Your task to perform on an android device: turn on sleep mode Image 0: 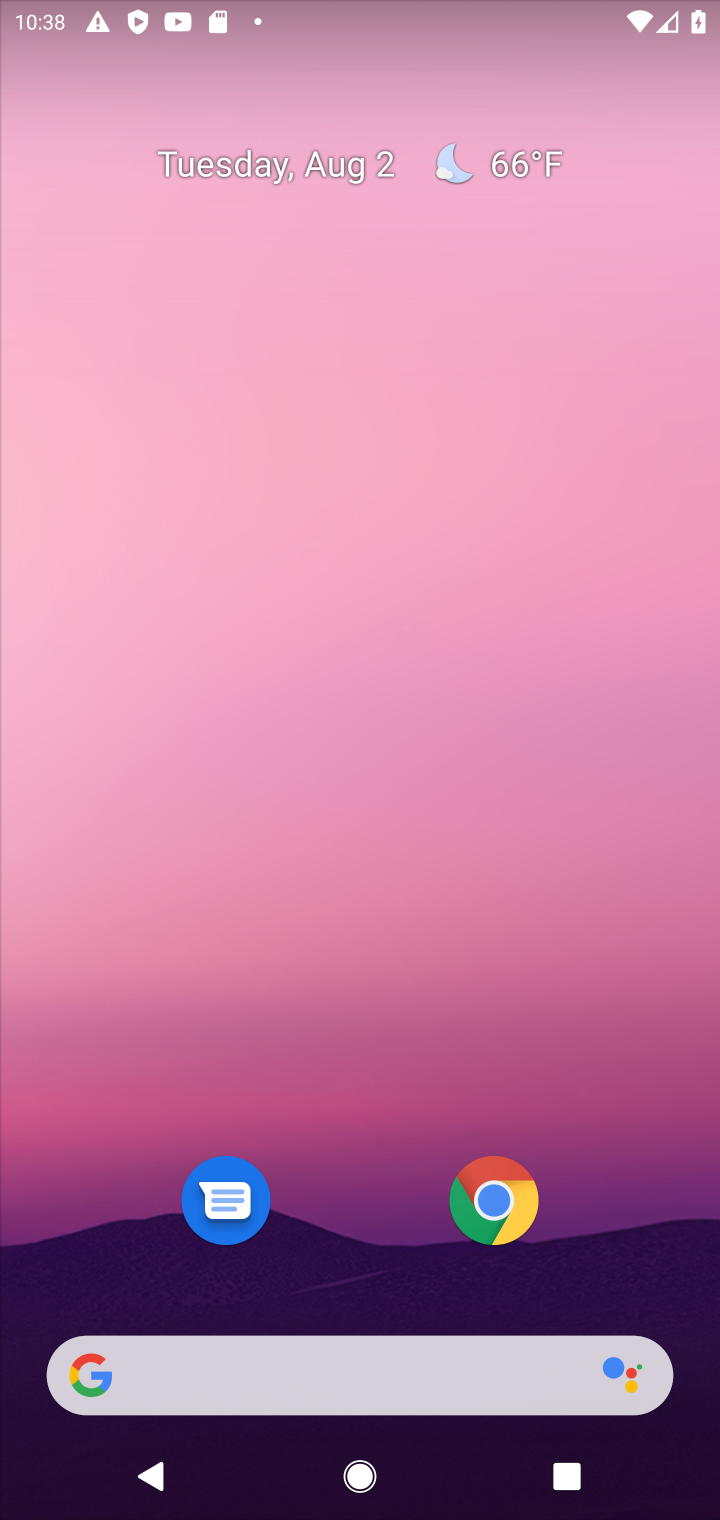
Step 0: press home button
Your task to perform on an android device: turn on sleep mode Image 1: 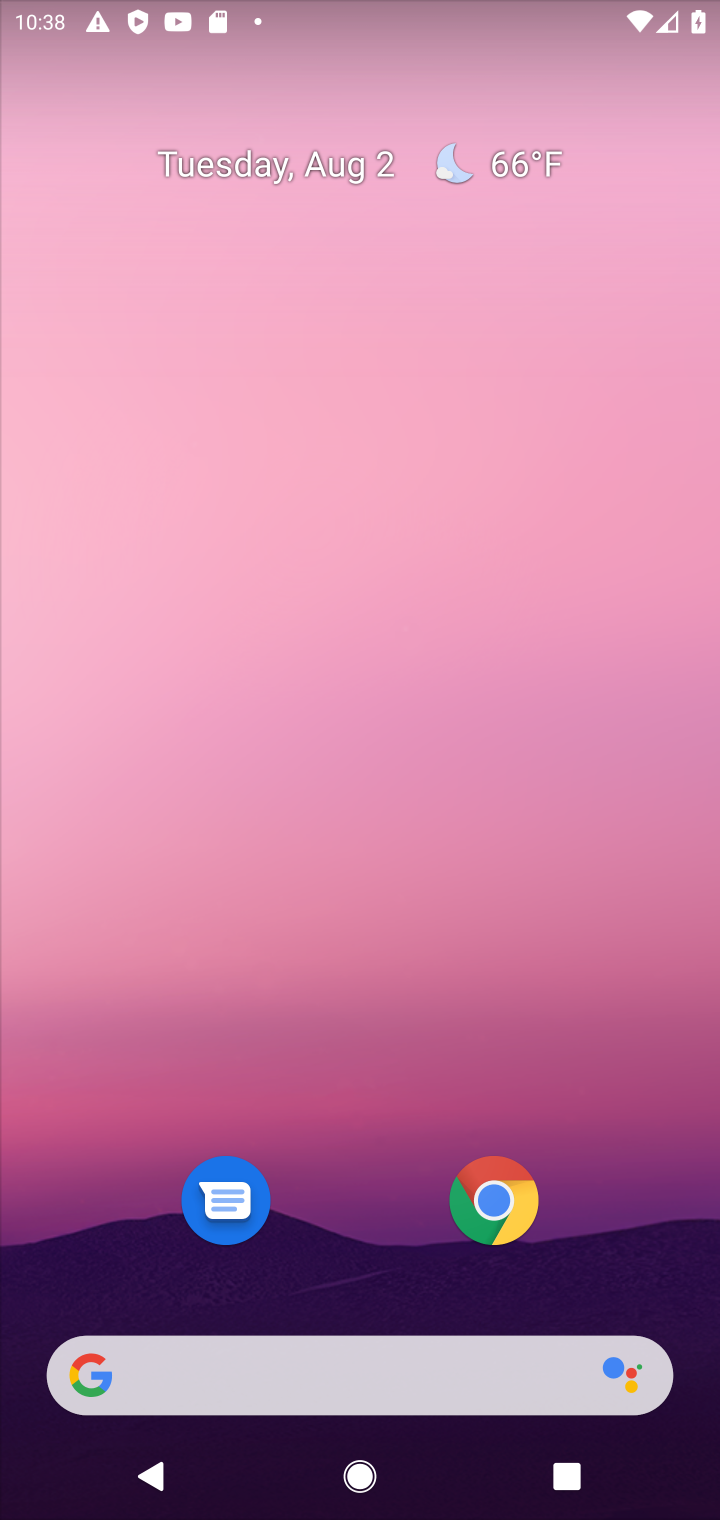
Step 1: drag from (658, 1279) to (592, 180)
Your task to perform on an android device: turn on sleep mode Image 2: 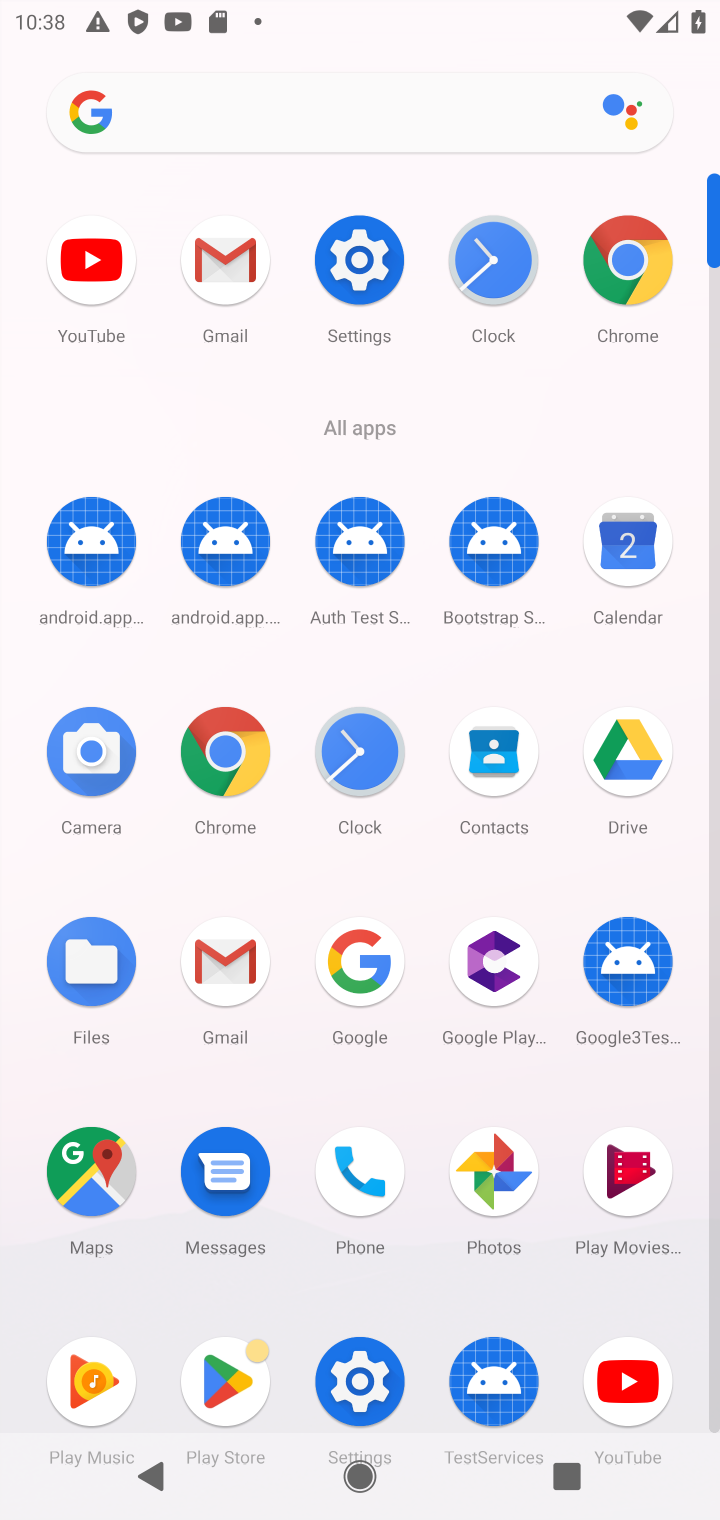
Step 2: click (355, 1375)
Your task to perform on an android device: turn on sleep mode Image 3: 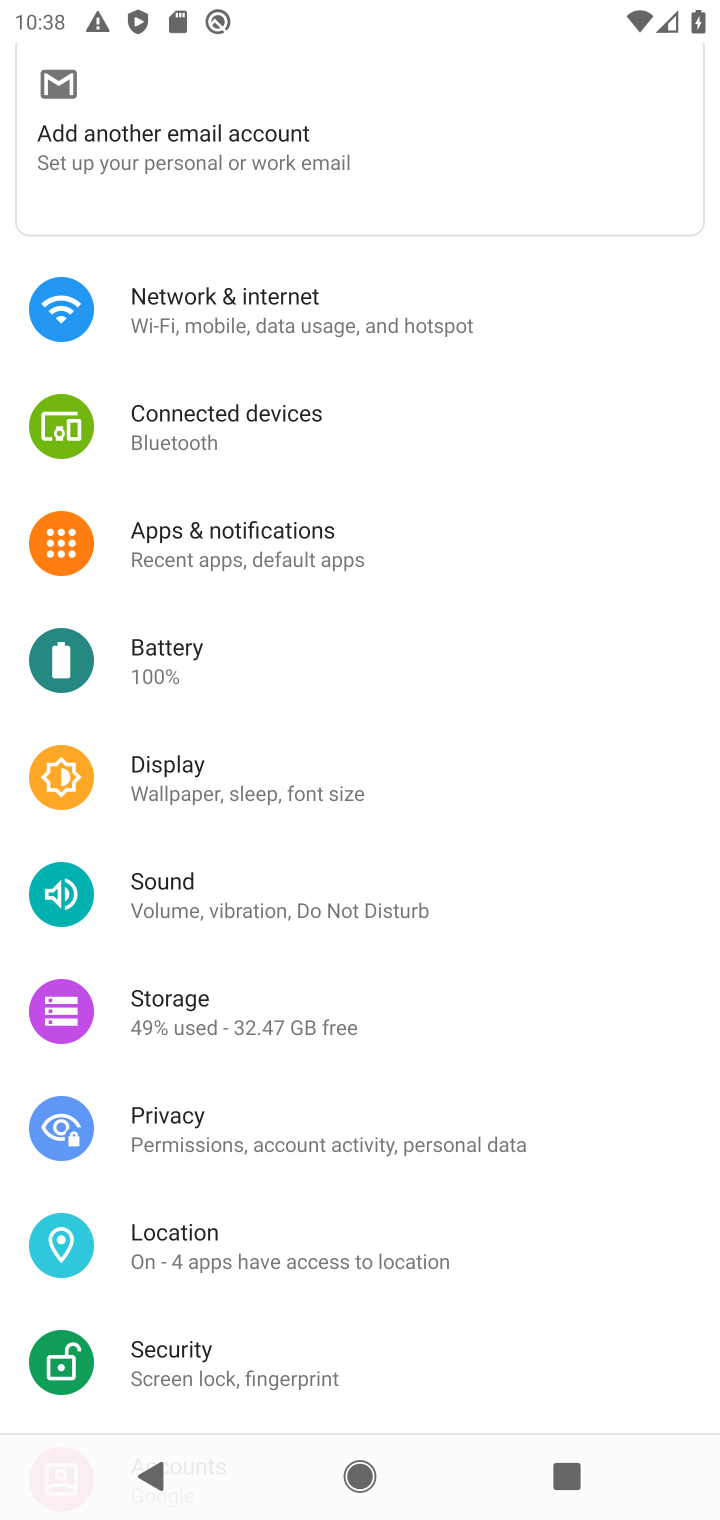
Step 3: click (185, 765)
Your task to perform on an android device: turn on sleep mode Image 4: 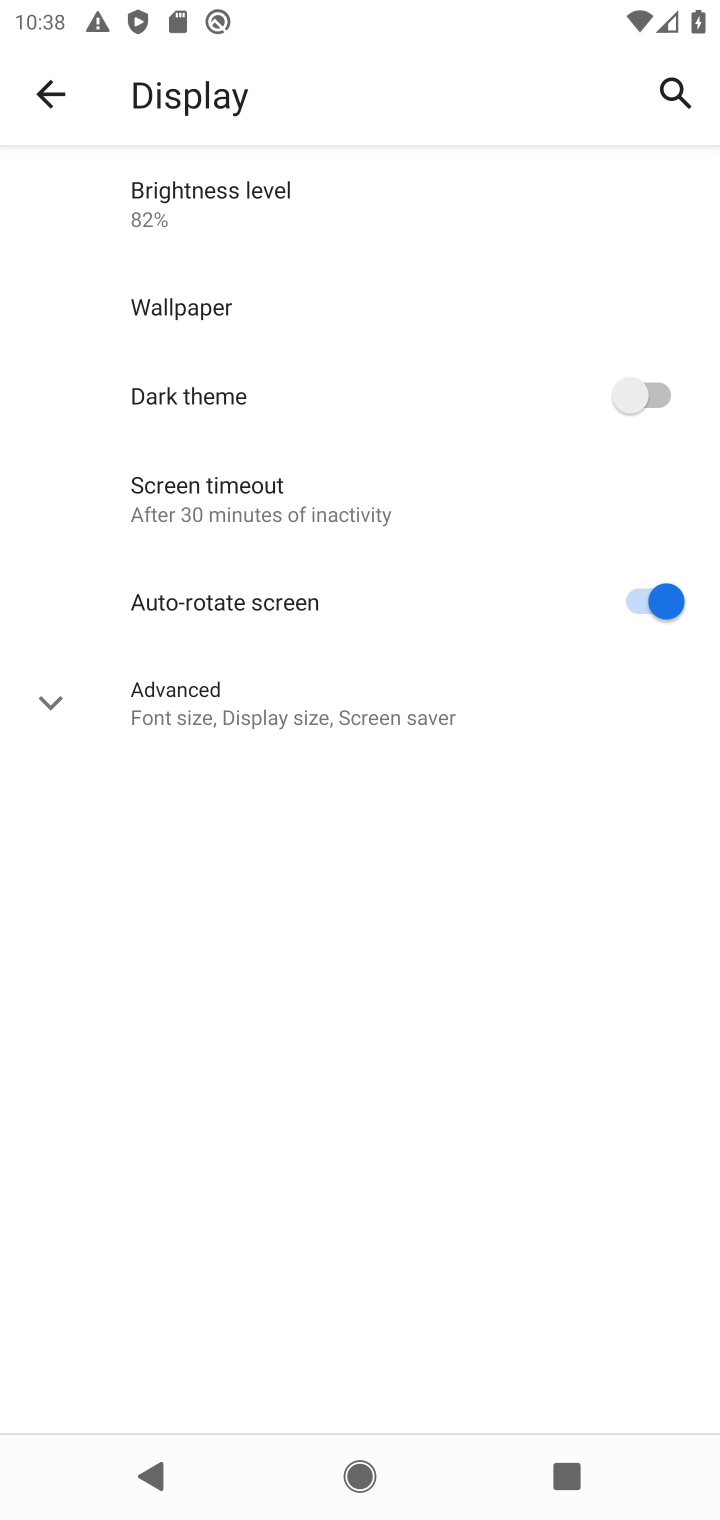
Step 4: click (51, 701)
Your task to perform on an android device: turn on sleep mode Image 5: 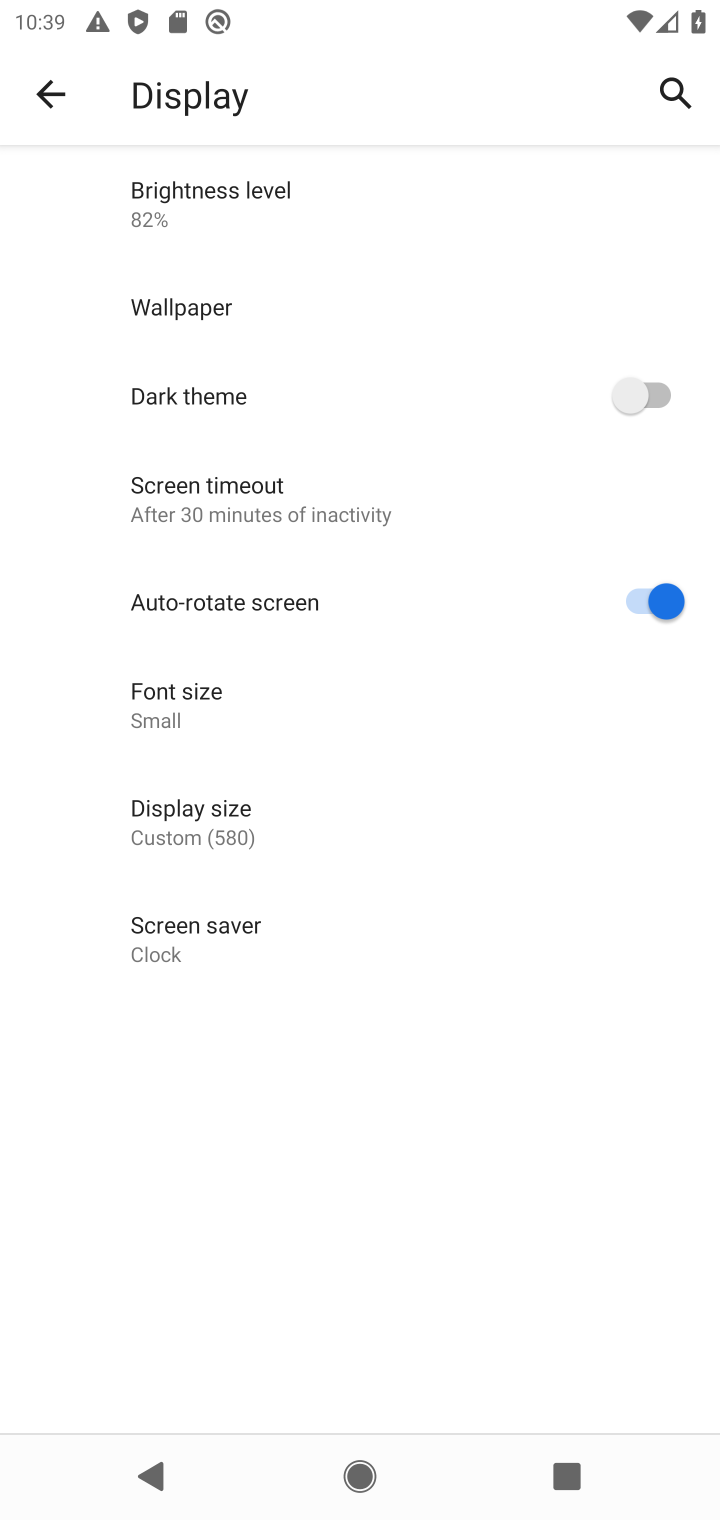
Step 5: task complete